Your task to perform on an android device: open wifi settings Image 0: 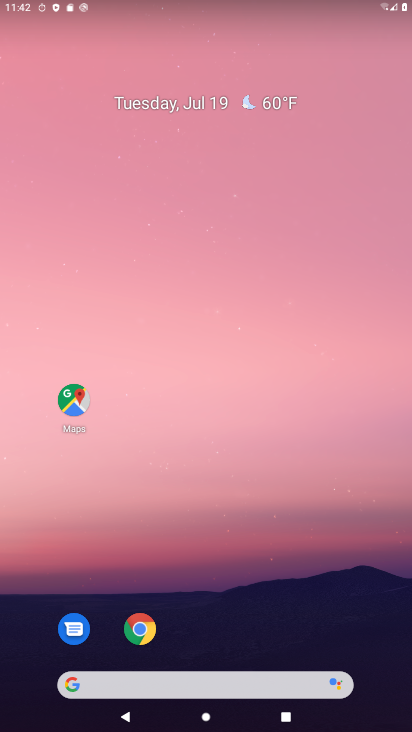
Step 0: drag from (252, 580) to (274, 191)
Your task to perform on an android device: open wifi settings Image 1: 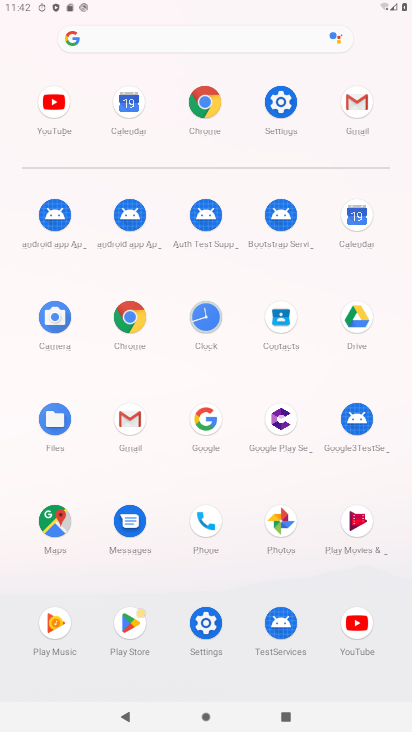
Step 1: click (280, 87)
Your task to perform on an android device: open wifi settings Image 2: 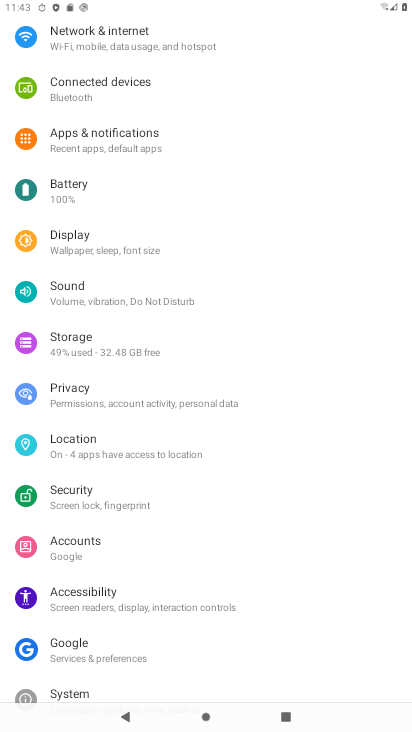
Step 2: click (125, 41)
Your task to perform on an android device: open wifi settings Image 3: 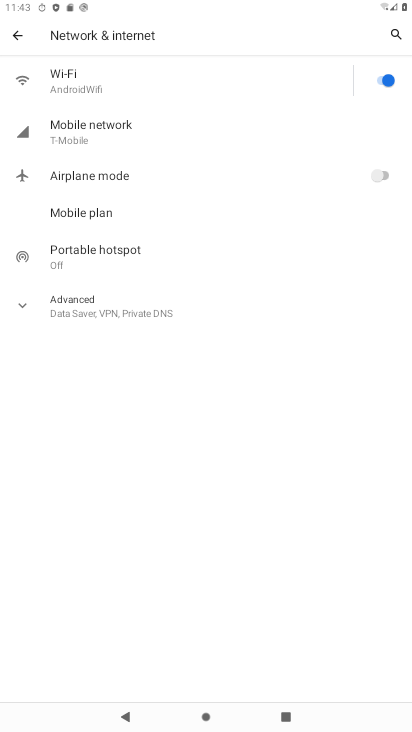
Step 3: click (87, 75)
Your task to perform on an android device: open wifi settings Image 4: 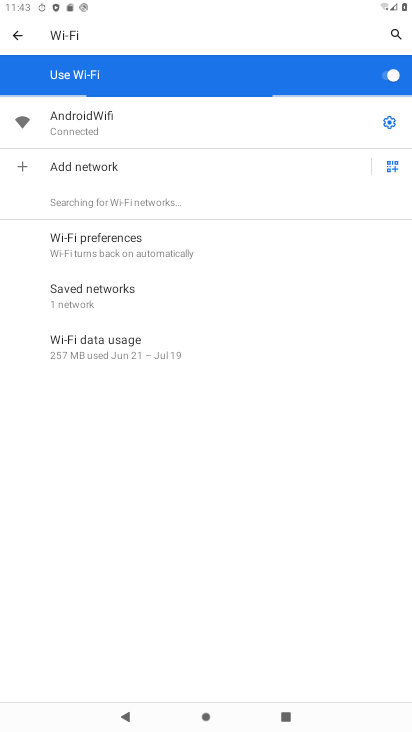
Step 4: task complete